Your task to perform on an android device: Turn on the flashlight Image 0: 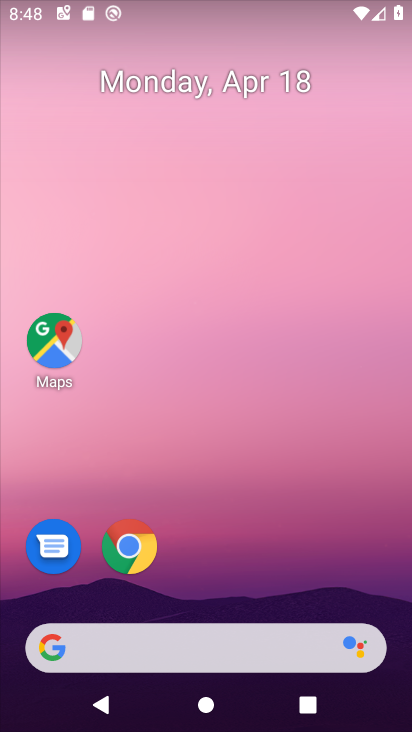
Step 0: drag from (336, 521) to (184, 55)
Your task to perform on an android device: Turn on the flashlight Image 1: 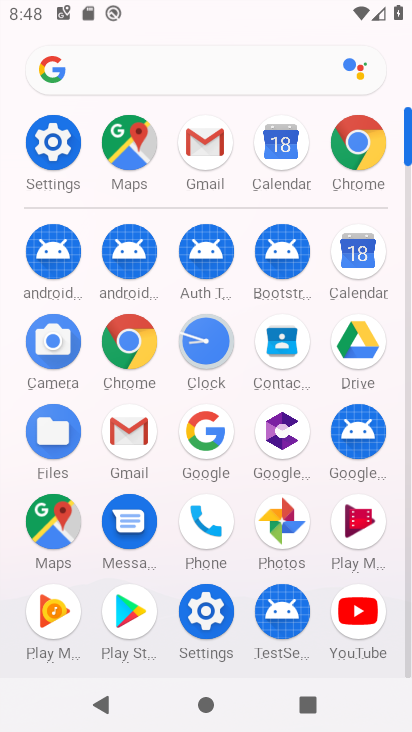
Step 1: drag from (216, 6) to (196, 613)
Your task to perform on an android device: Turn on the flashlight Image 2: 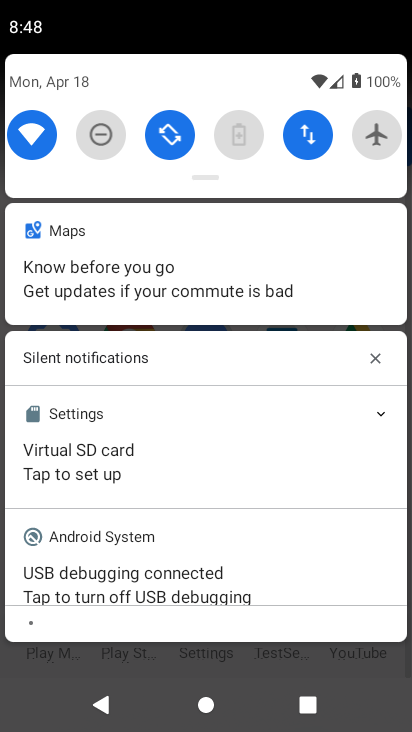
Step 2: drag from (274, 164) to (276, 588)
Your task to perform on an android device: Turn on the flashlight Image 3: 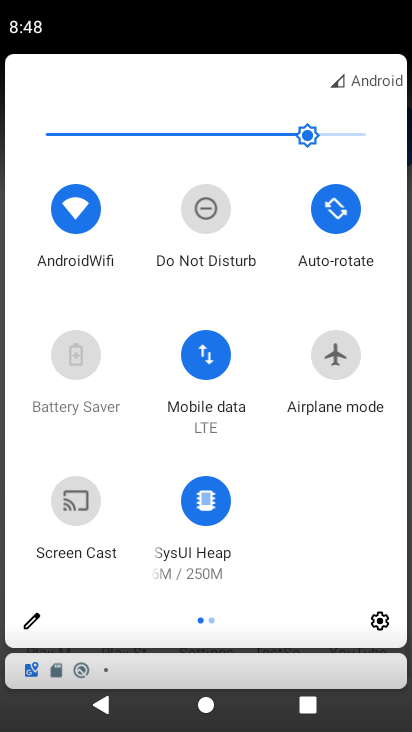
Step 3: drag from (355, 512) to (21, 466)
Your task to perform on an android device: Turn on the flashlight Image 4: 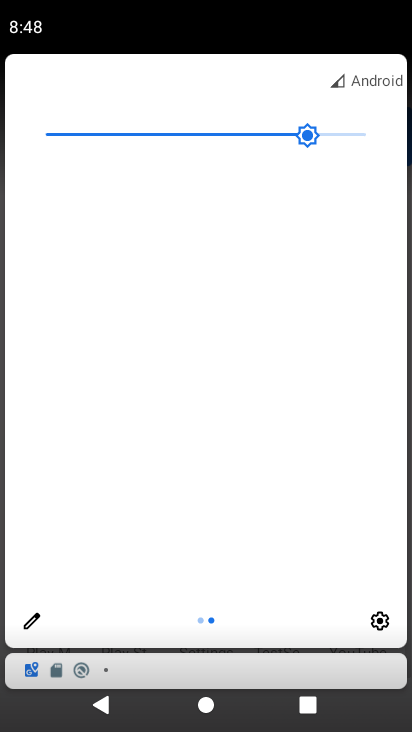
Step 4: click (32, 621)
Your task to perform on an android device: Turn on the flashlight Image 5: 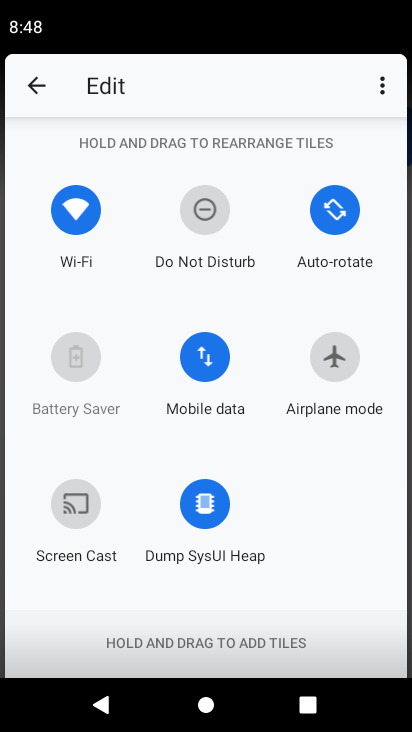
Step 5: task complete